Your task to perform on an android device: turn off location history Image 0: 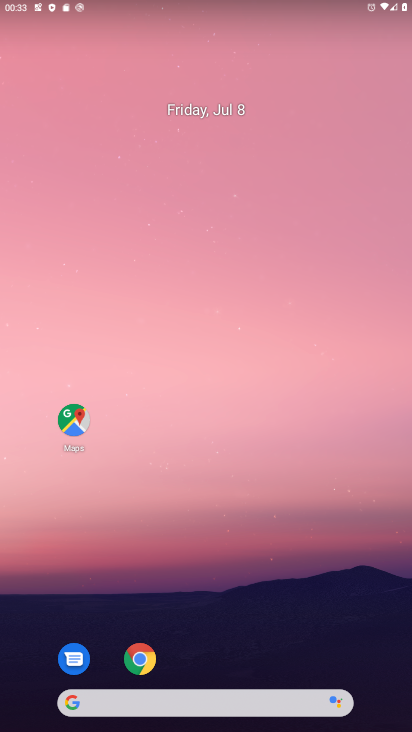
Step 0: drag from (222, 643) to (246, 0)
Your task to perform on an android device: turn off location history Image 1: 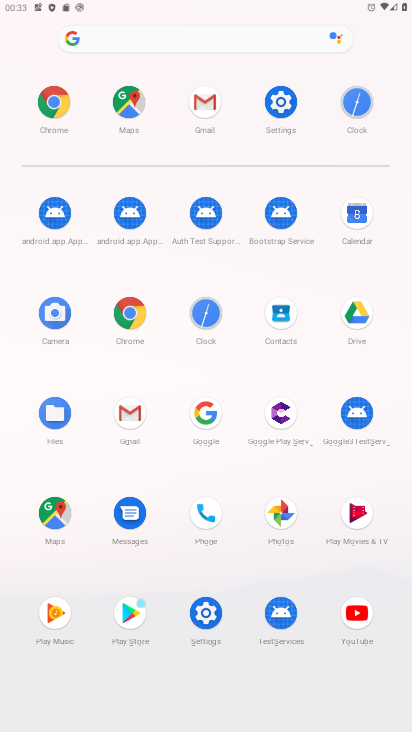
Step 1: click (280, 108)
Your task to perform on an android device: turn off location history Image 2: 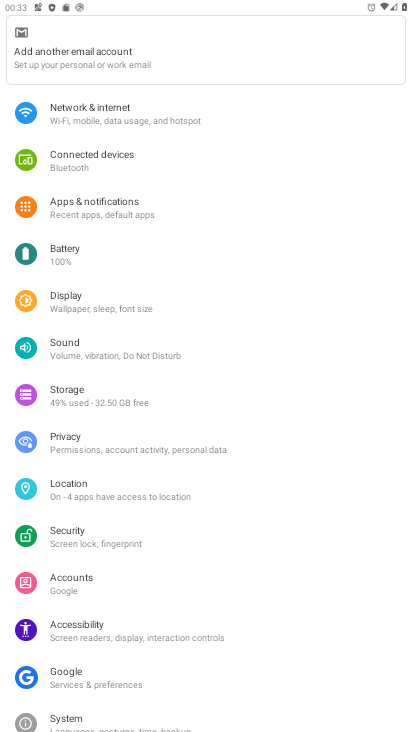
Step 2: click (195, 505)
Your task to perform on an android device: turn off location history Image 3: 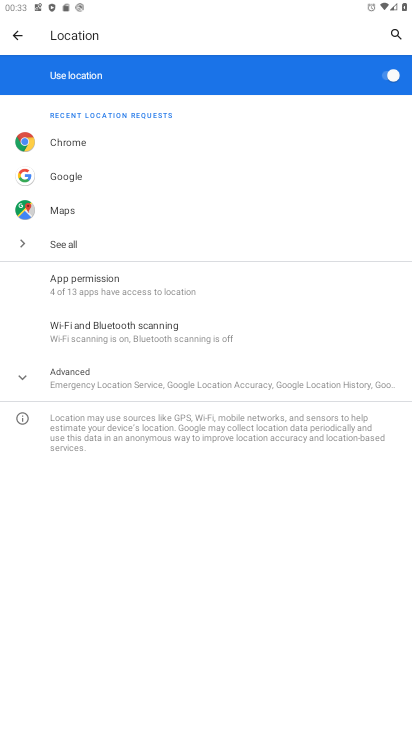
Step 3: click (144, 380)
Your task to perform on an android device: turn off location history Image 4: 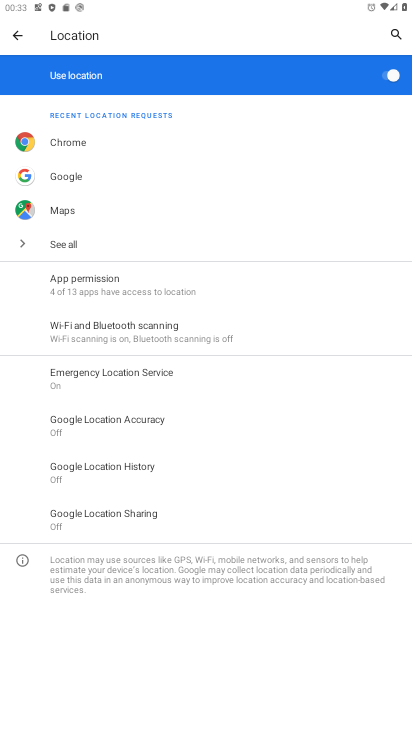
Step 4: click (157, 472)
Your task to perform on an android device: turn off location history Image 5: 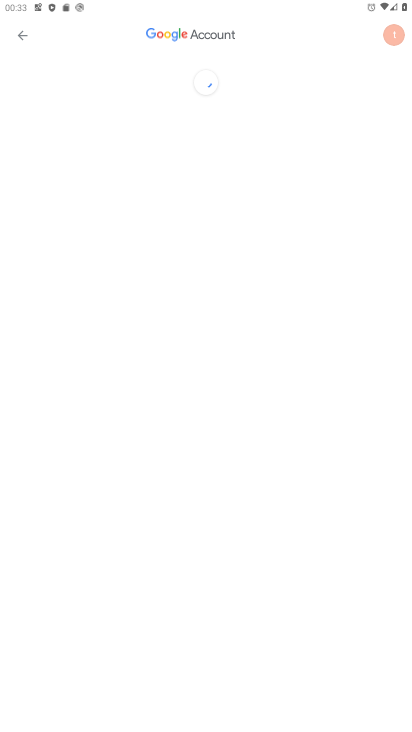
Step 5: task complete